Your task to perform on an android device: toggle show notifications on the lock screen Image 0: 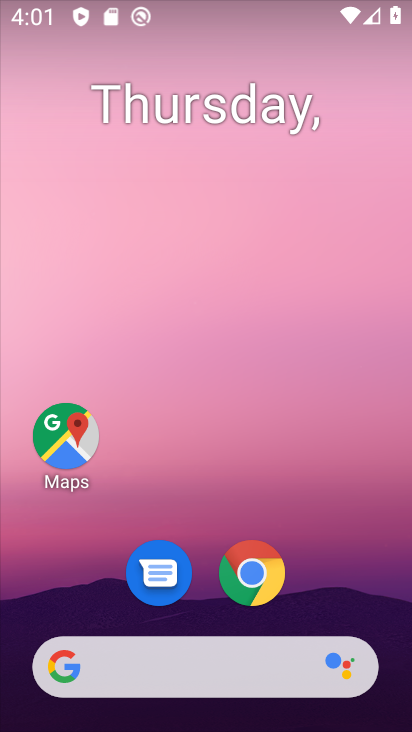
Step 0: drag from (390, 669) to (285, 64)
Your task to perform on an android device: toggle show notifications on the lock screen Image 1: 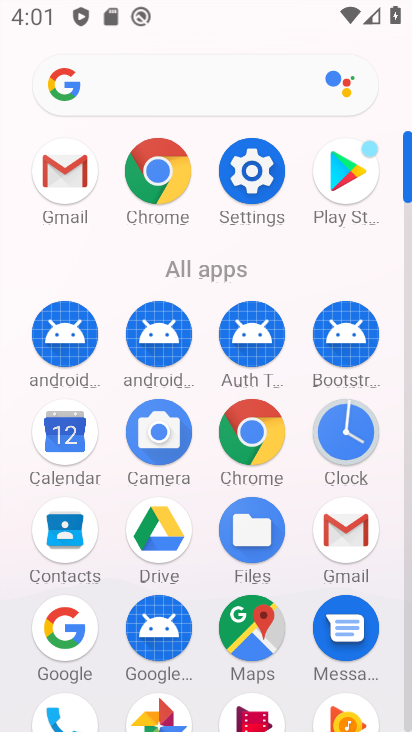
Step 1: click (405, 711)
Your task to perform on an android device: toggle show notifications on the lock screen Image 2: 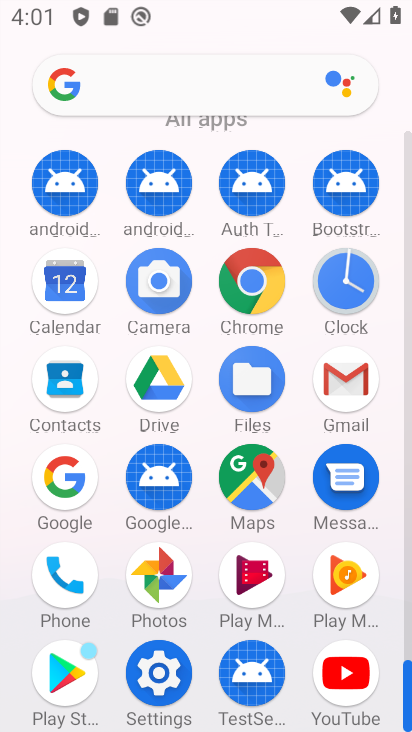
Step 2: click (158, 673)
Your task to perform on an android device: toggle show notifications on the lock screen Image 3: 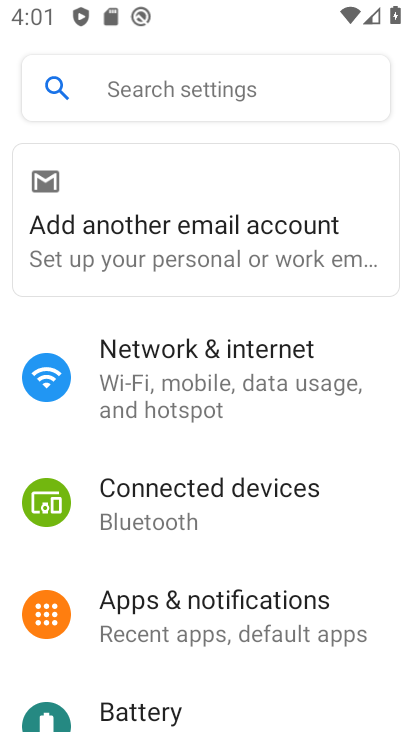
Step 3: click (172, 605)
Your task to perform on an android device: toggle show notifications on the lock screen Image 4: 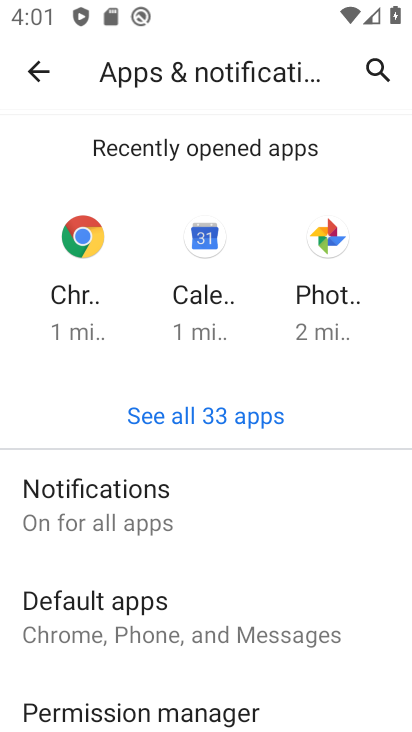
Step 4: click (126, 496)
Your task to perform on an android device: toggle show notifications on the lock screen Image 5: 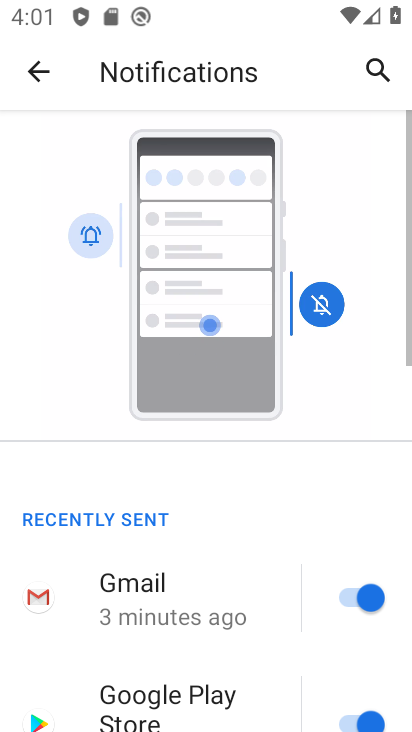
Step 5: drag from (306, 655) to (248, 150)
Your task to perform on an android device: toggle show notifications on the lock screen Image 6: 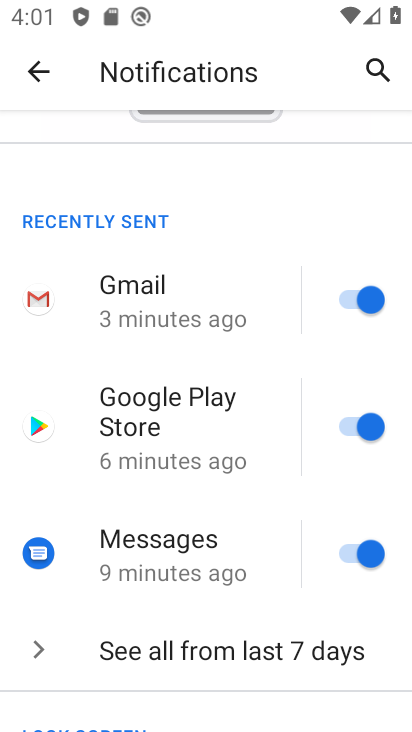
Step 6: drag from (287, 639) to (263, 163)
Your task to perform on an android device: toggle show notifications on the lock screen Image 7: 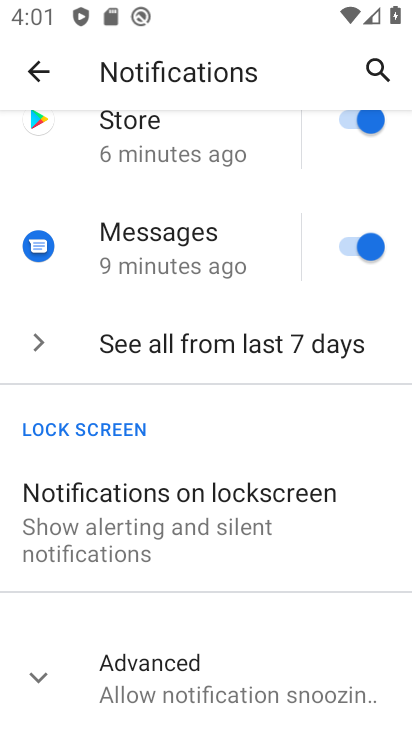
Step 7: click (140, 528)
Your task to perform on an android device: toggle show notifications on the lock screen Image 8: 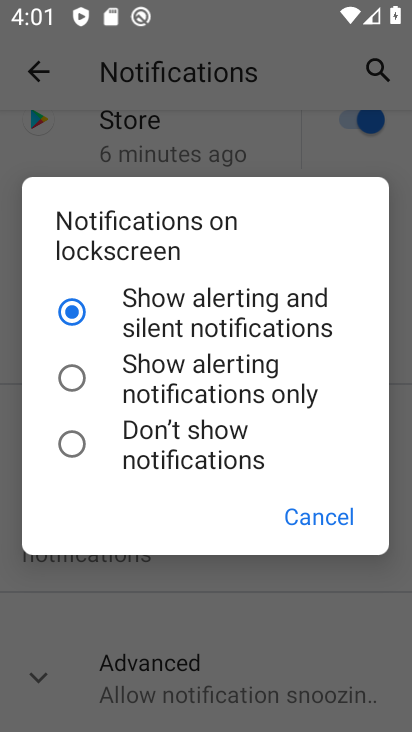
Step 8: click (69, 377)
Your task to perform on an android device: toggle show notifications on the lock screen Image 9: 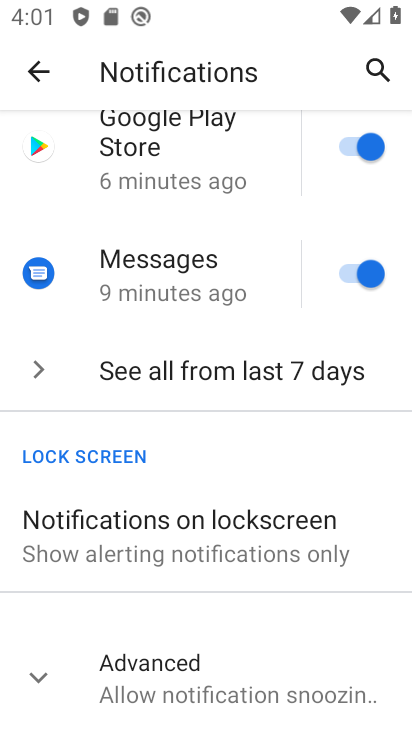
Step 9: task complete